Your task to perform on an android device: toggle airplane mode Image 0: 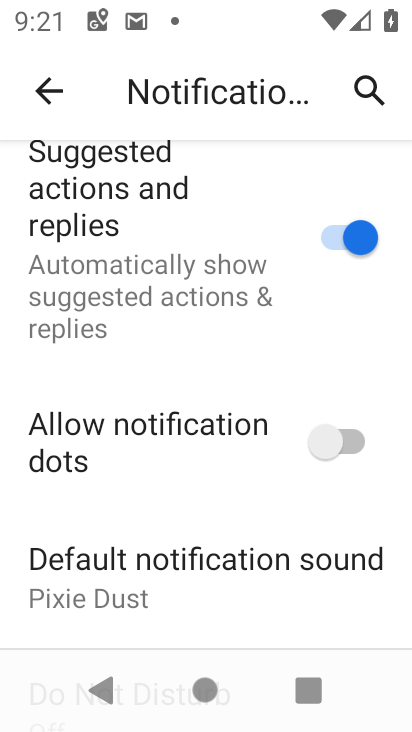
Step 0: press home button
Your task to perform on an android device: toggle airplane mode Image 1: 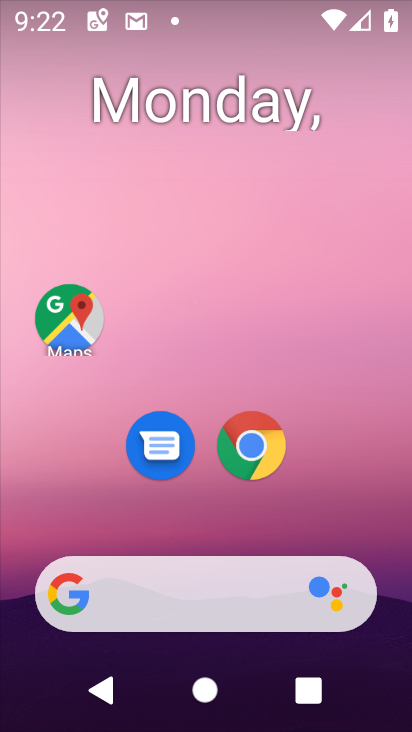
Step 1: drag from (220, 253) to (203, 7)
Your task to perform on an android device: toggle airplane mode Image 2: 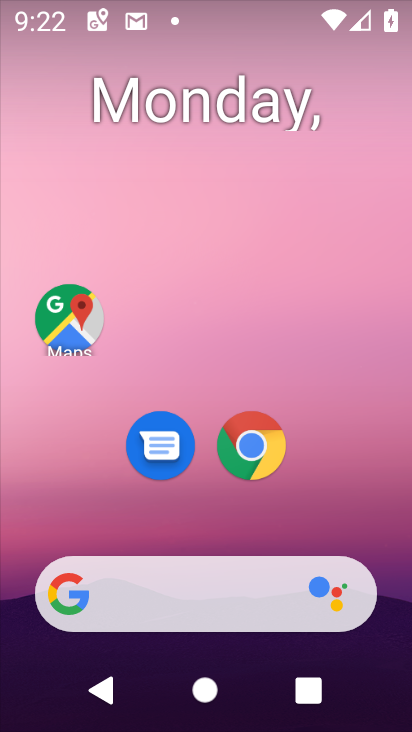
Step 2: drag from (249, 667) to (301, 85)
Your task to perform on an android device: toggle airplane mode Image 3: 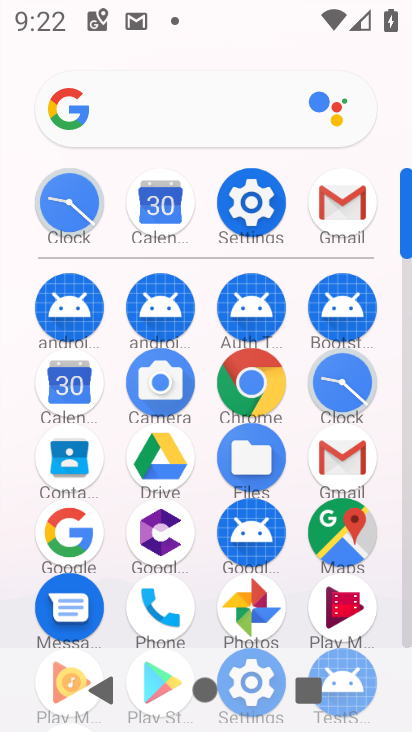
Step 3: click (264, 186)
Your task to perform on an android device: toggle airplane mode Image 4: 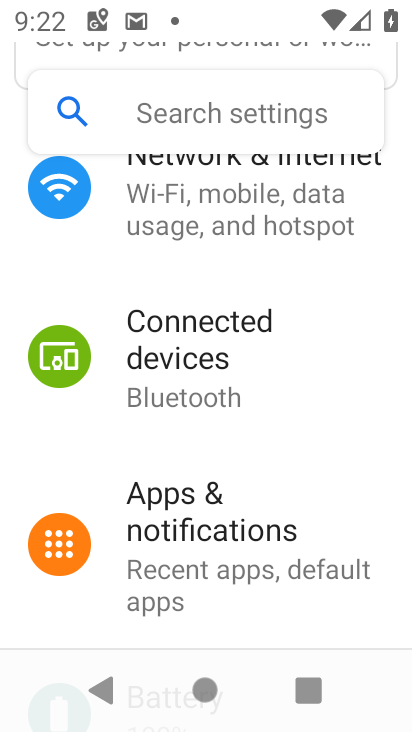
Step 4: click (263, 190)
Your task to perform on an android device: toggle airplane mode Image 5: 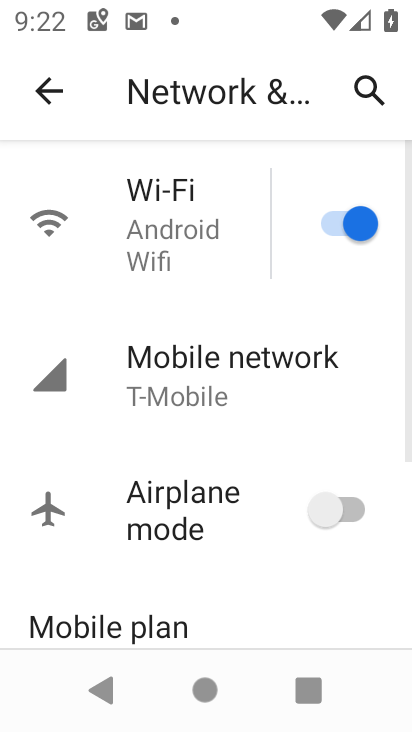
Step 5: click (332, 506)
Your task to perform on an android device: toggle airplane mode Image 6: 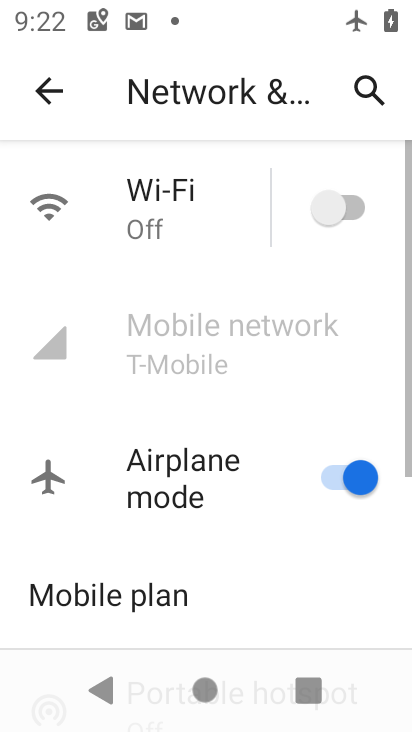
Step 6: task complete